Your task to perform on an android device: check google app version Image 0: 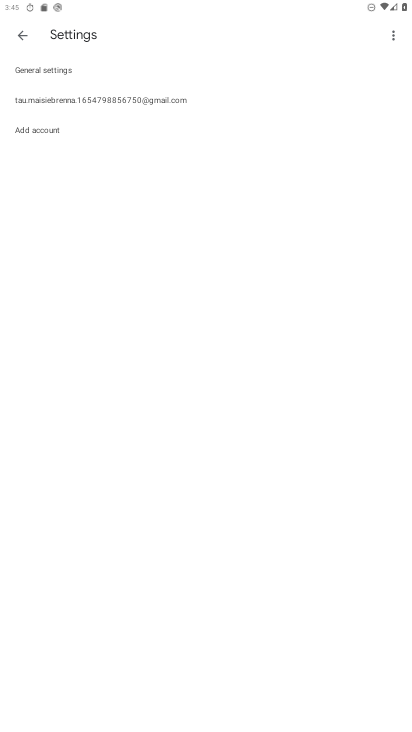
Step 0: press home button
Your task to perform on an android device: check google app version Image 1: 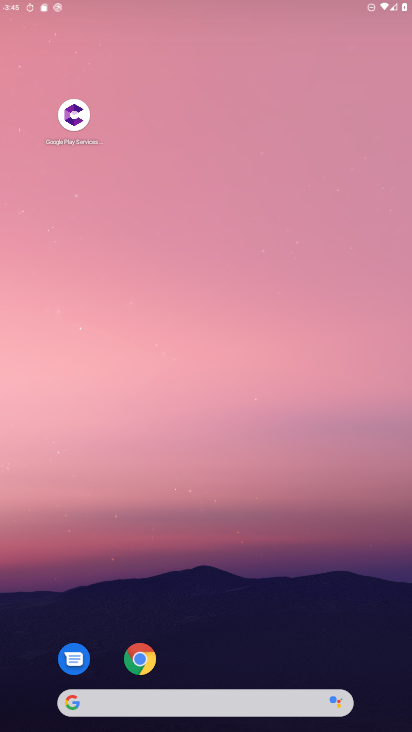
Step 1: click (259, 295)
Your task to perform on an android device: check google app version Image 2: 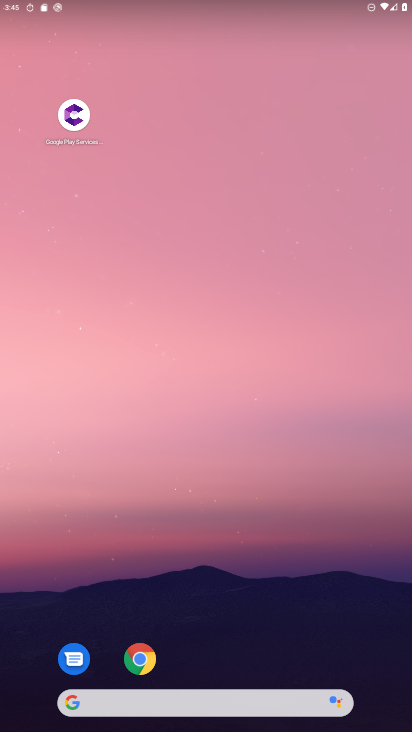
Step 2: drag from (215, 650) to (216, 256)
Your task to perform on an android device: check google app version Image 3: 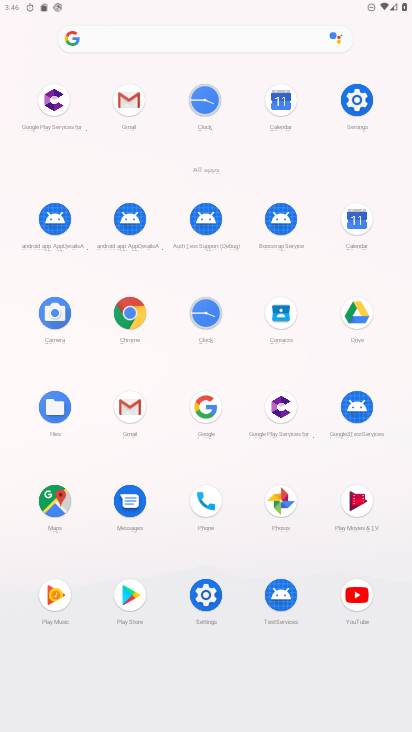
Step 3: click (209, 414)
Your task to perform on an android device: check google app version Image 4: 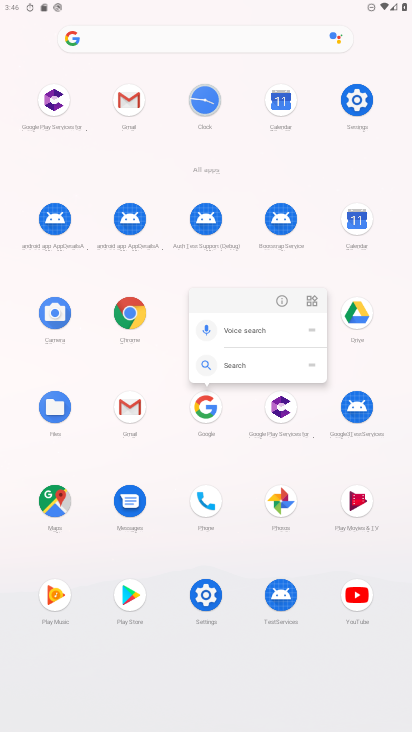
Step 4: click (205, 412)
Your task to perform on an android device: check google app version Image 5: 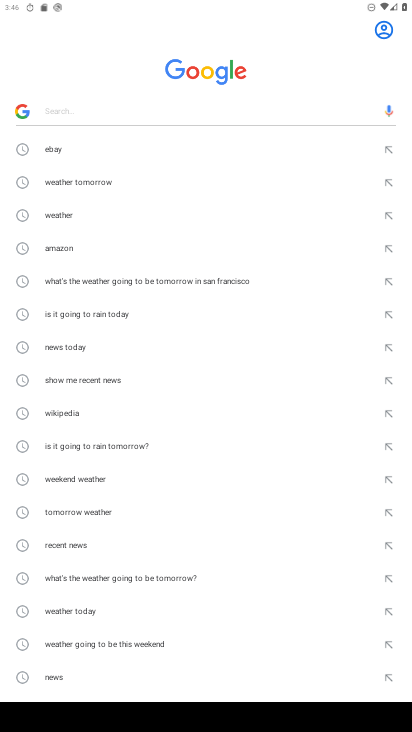
Step 5: click (22, 112)
Your task to perform on an android device: check google app version Image 6: 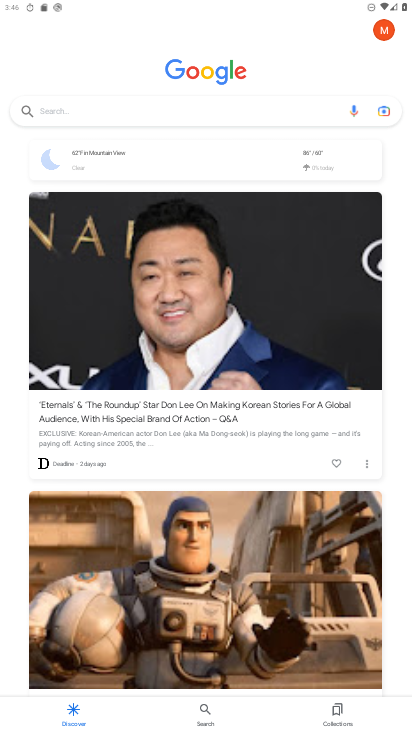
Step 6: click (375, 25)
Your task to perform on an android device: check google app version Image 7: 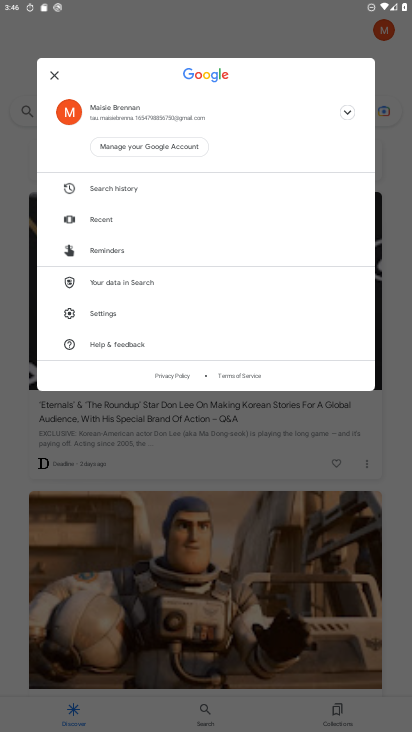
Step 7: click (103, 309)
Your task to perform on an android device: check google app version Image 8: 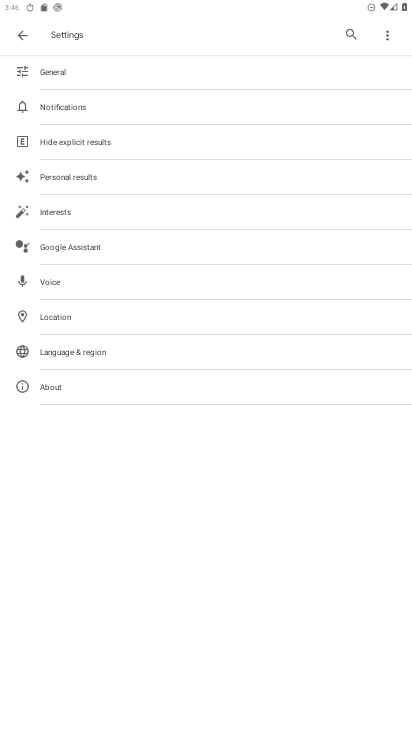
Step 8: click (68, 381)
Your task to perform on an android device: check google app version Image 9: 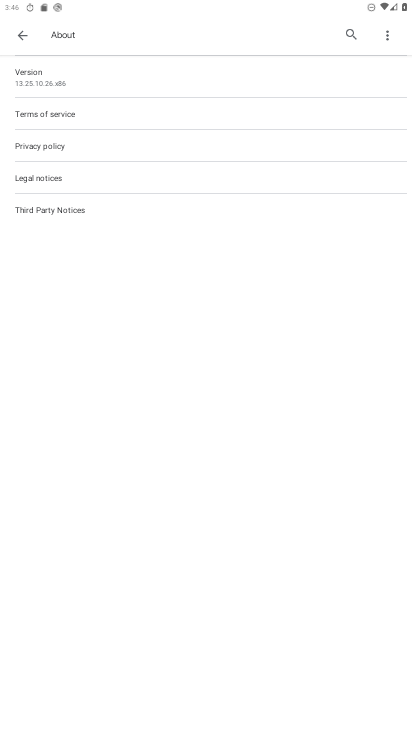
Step 9: click (34, 77)
Your task to perform on an android device: check google app version Image 10: 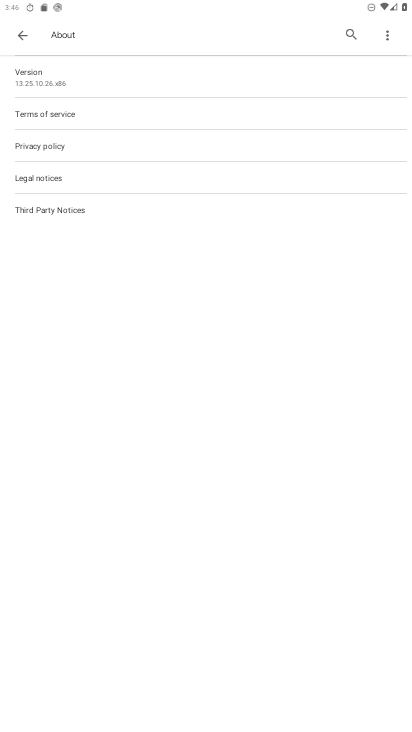
Step 10: task complete